Your task to perform on an android device: open chrome privacy settings Image 0: 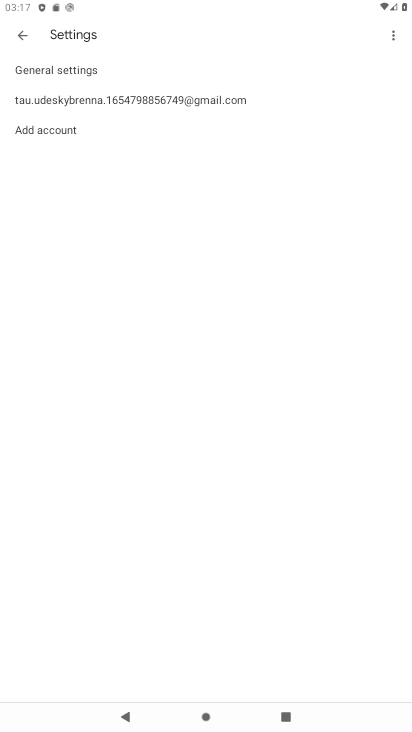
Step 0: press home button
Your task to perform on an android device: open chrome privacy settings Image 1: 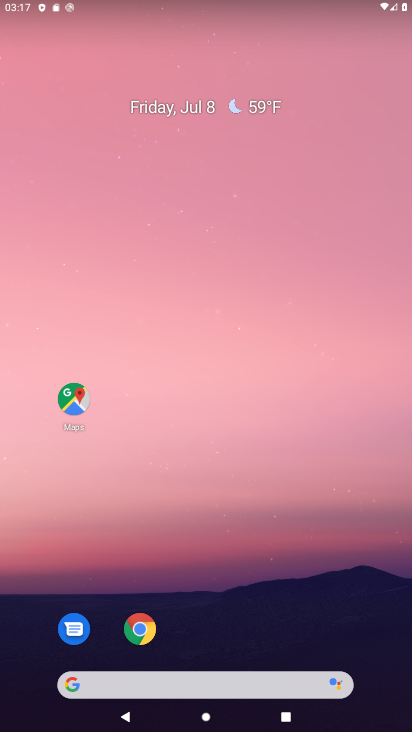
Step 1: click (136, 626)
Your task to perform on an android device: open chrome privacy settings Image 2: 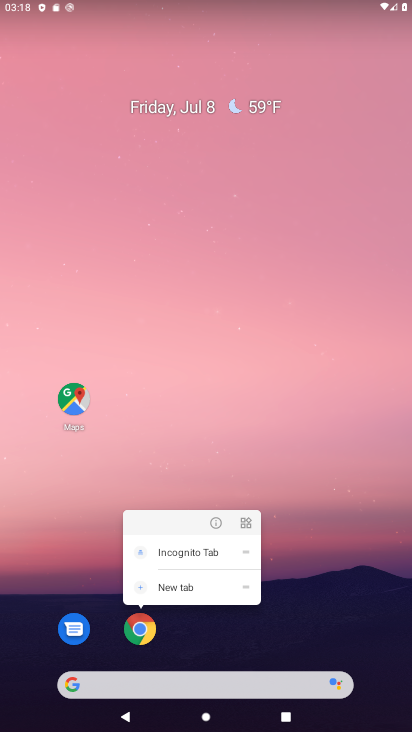
Step 2: click (134, 633)
Your task to perform on an android device: open chrome privacy settings Image 3: 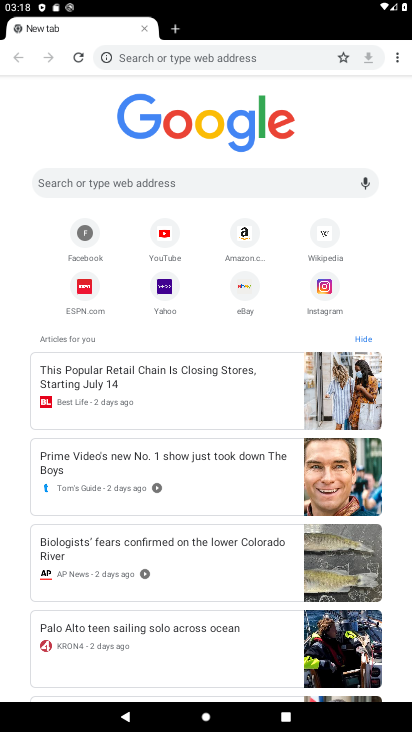
Step 3: click (395, 56)
Your task to perform on an android device: open chrome privacy settings Image 4: 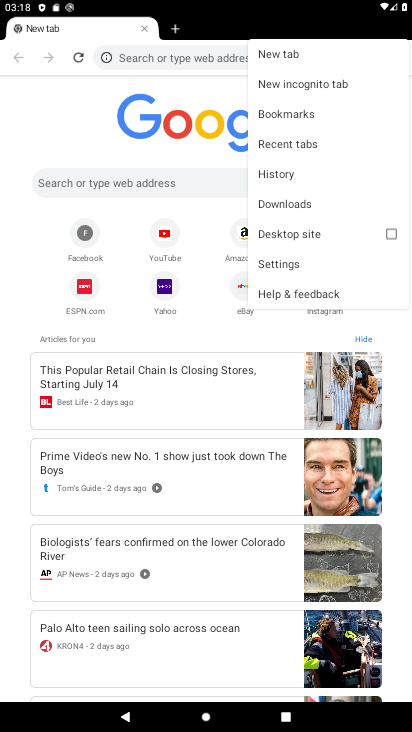
Step 4: click (301, 261)
Your task to perform on an android device: open chrome privacy settings Image 5: 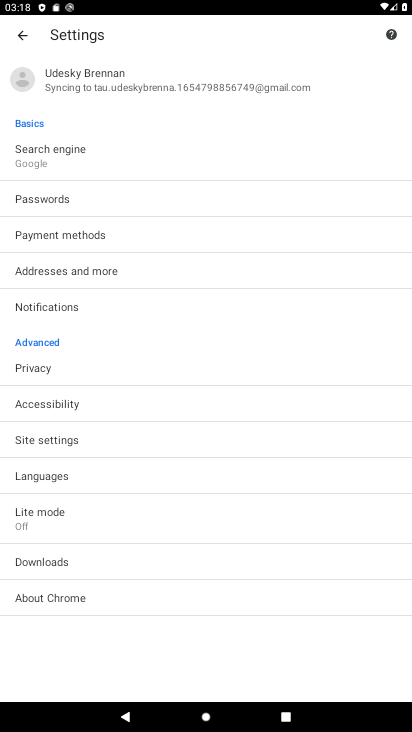
Step 5: click (57, 363)
Your task to perform on an android device: open chrome privacy settings Image 6: 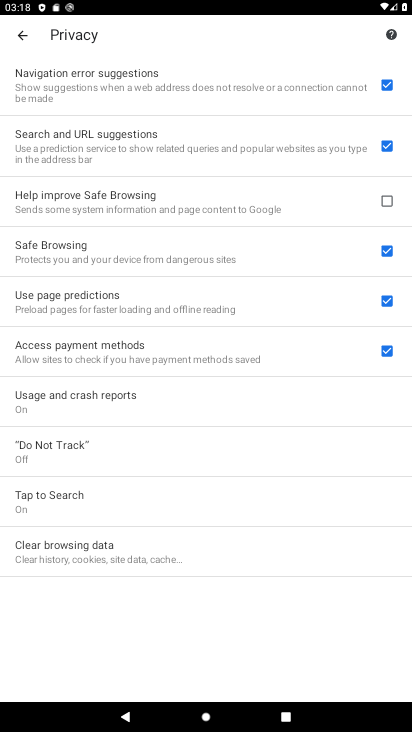
Step 6: task complete